Your task to perform on an android device: Is it going to rain this weekend? Image 0: 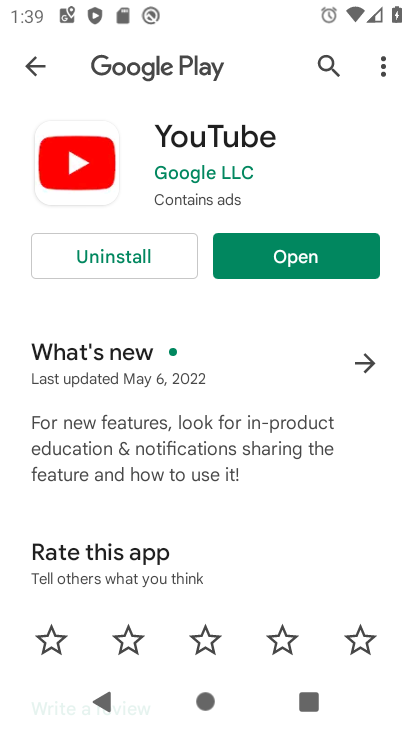
Step 0: press home button
Your task to perform on an android device: Is it going to rain this weekend? Image 1: 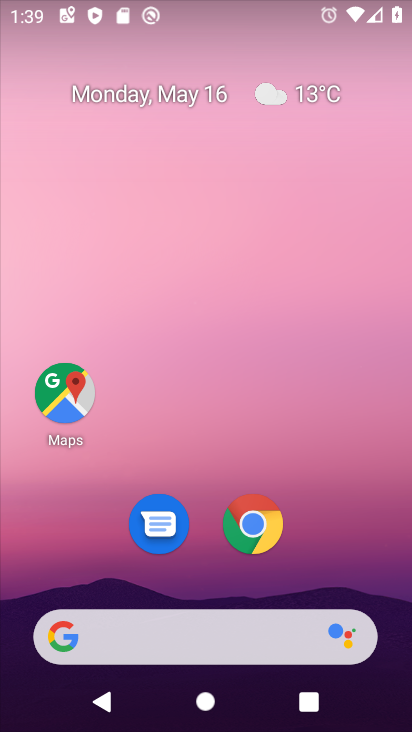
Step 1: click (291, 95)
Your task to perform on an android device: Is it going to rain this weekend? Image 2: 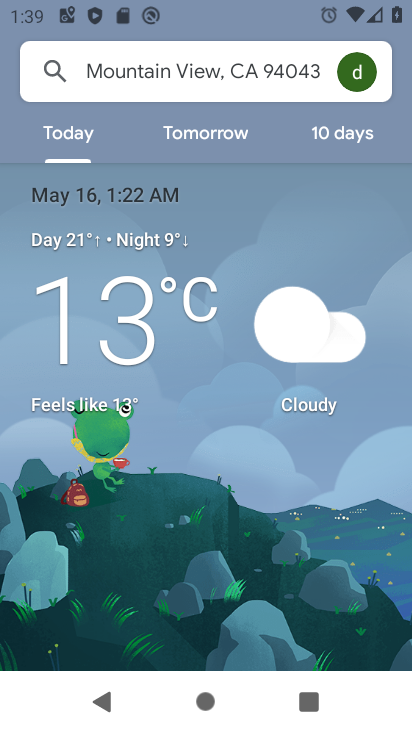
Step 2: click (335, 123)
Your task to perform on an android device: Is it going to rain this weekend? Image 3: 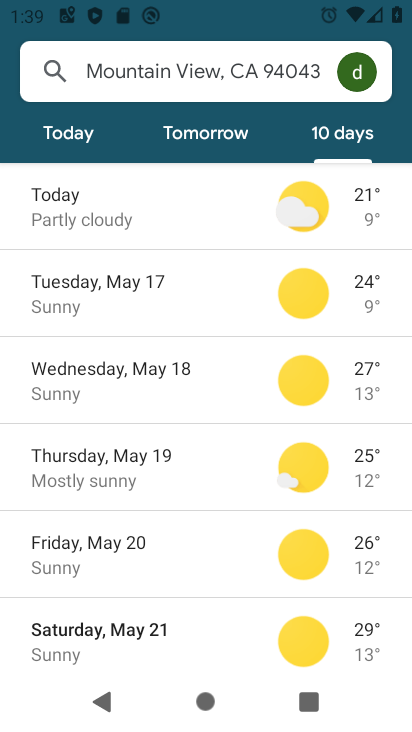
Step 3: click (100, 628)
Your task to perform on an android device: Is it going to rain this weekend? Image 4: 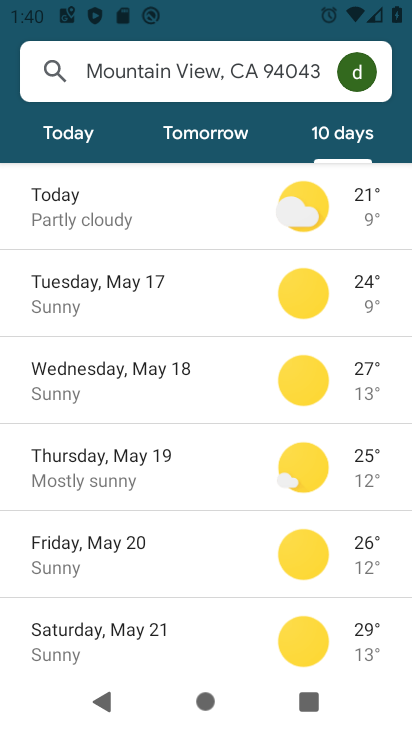
Step 4: drag from (183, 534) to (206, 204)
Your task to perform on an android device: Is it going to rain this weekend? Image 5: 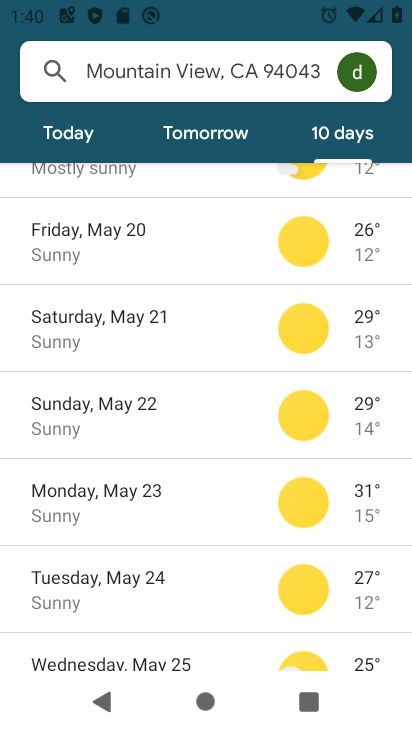
Step 5: click (101, 409)
Your task to perform on an android device: Is it going to rain this weekend? Image 6: 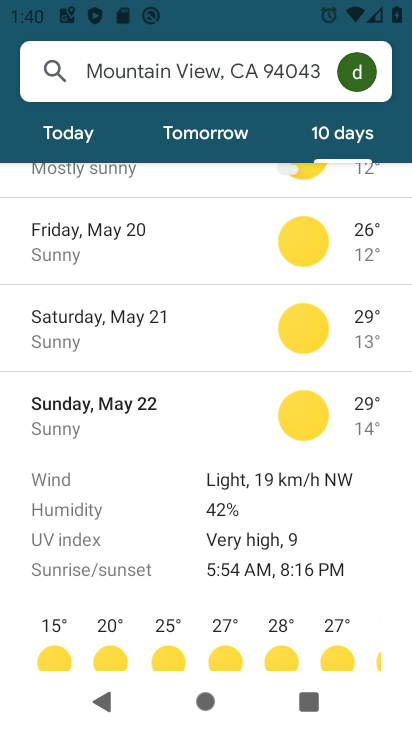
Step 6: click (143, 320)
Your task to perform on an android device: Is it going to rain this weekend? Image 7: 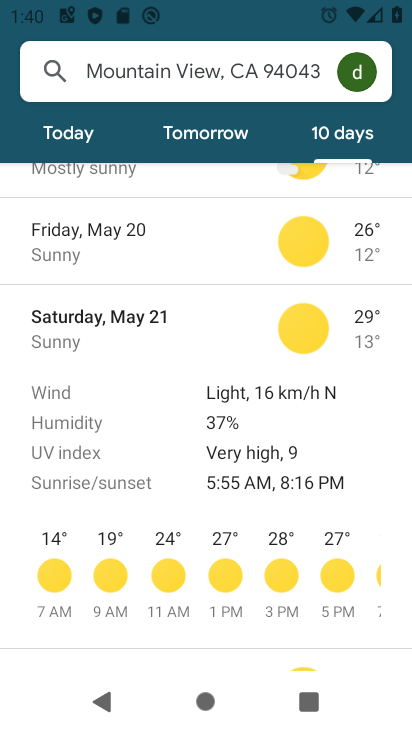
Step 7: task complete